Your task to perform on an android device: Open the phone app and click the voicemail tab. Image 0: 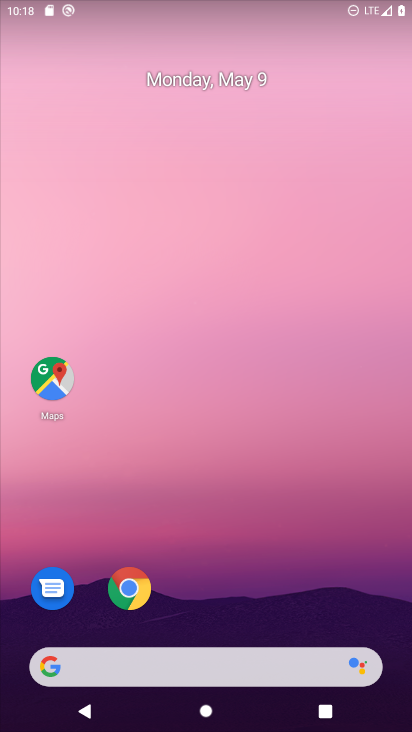
Step 0: drag from (253, 599) to (199, 184)
Your task to perform on an android device: Open the phone app and click the voicemail tab. Image 1: 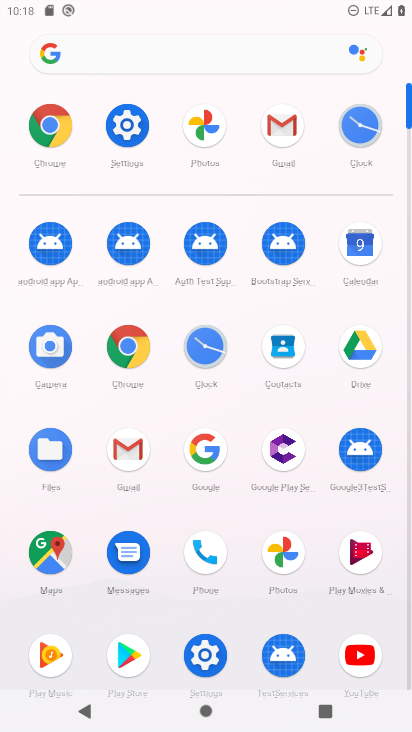
Step 1: click (196, 558)
Your task to perform on an android device: Open the phone app and click the voicemail tab. Image 2: 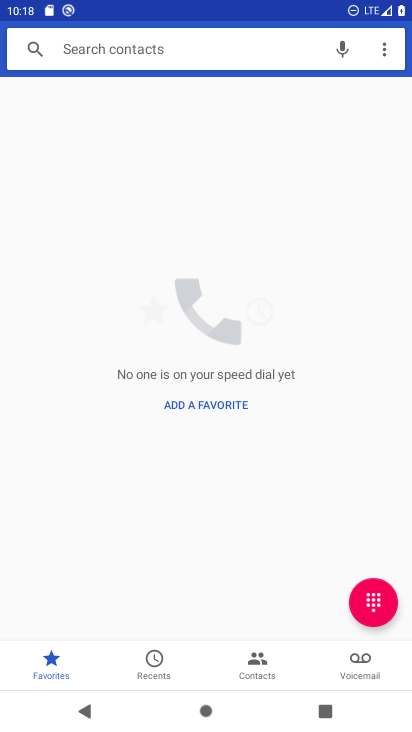
Step 2: click (342, 664)
Your task to perform on an android device: Open the phone app and click the voicemail tab. Image 3: 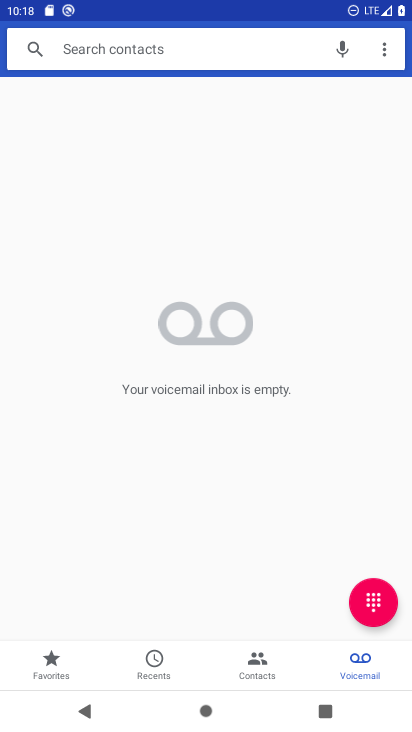
Step 3: task complete